Your task to perform on an android device: change the clock display to analog Image 0: 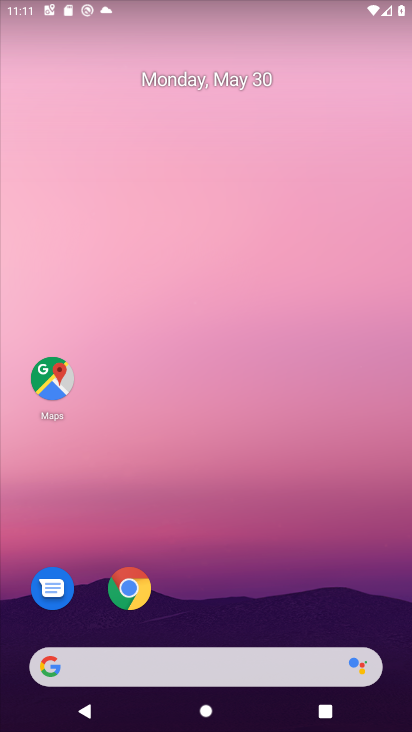
Step 0: press home button
Your task to perform on an android device: change the clock display to analog Image 1: 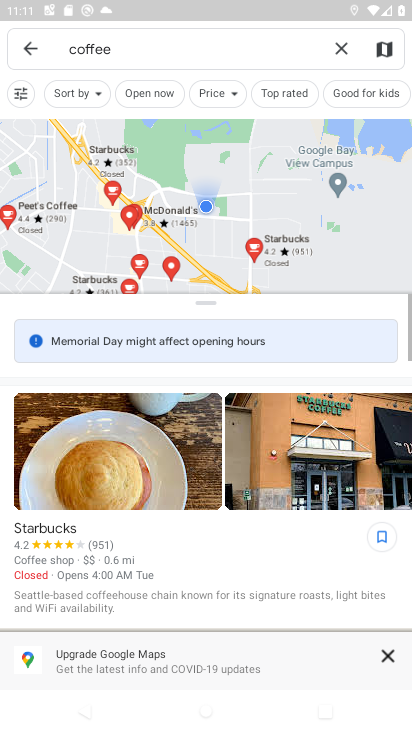
Step 1: drag from (329, 518) to (336, 6)
Your task to perform on an android device: change the clock display to analog Image 2: 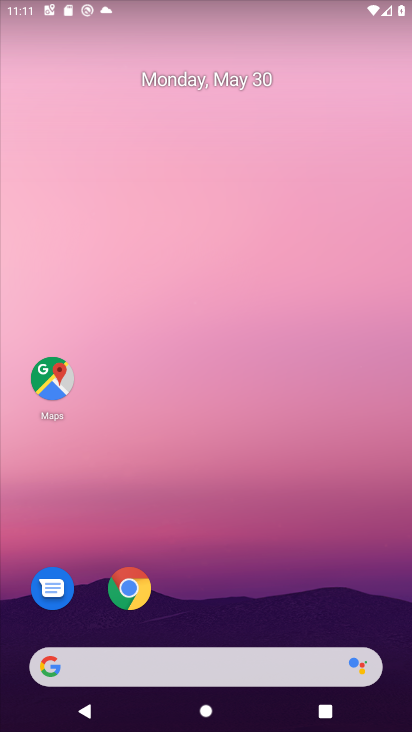
Step 2: drag from (243, 702) to (289, 54)
Your task to perform on an android device: change the clock display to analog Image 3: 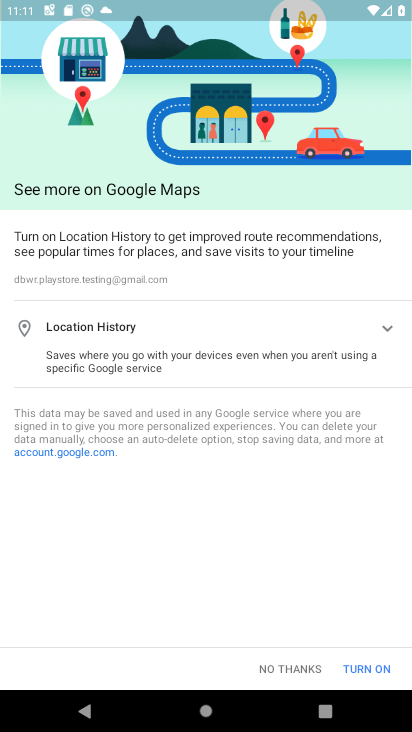
Step 3: press home button
Your task to perform on an android device: change the clock display to analog Image 4: 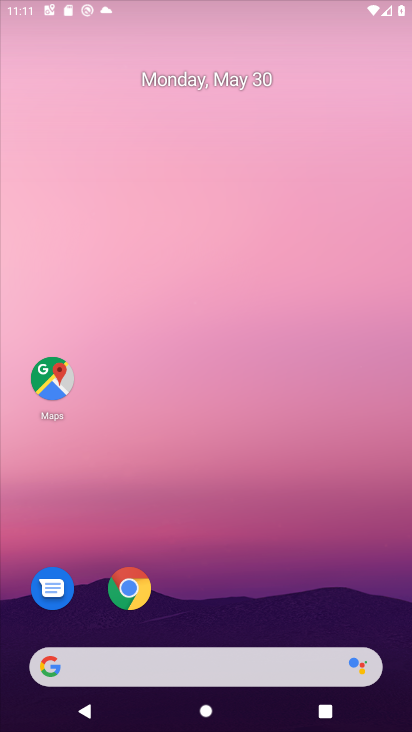
Step 4: drag from (245, 687) to (411, 67)
Your task to perform on an android device: change the clock display to analog Image 5: 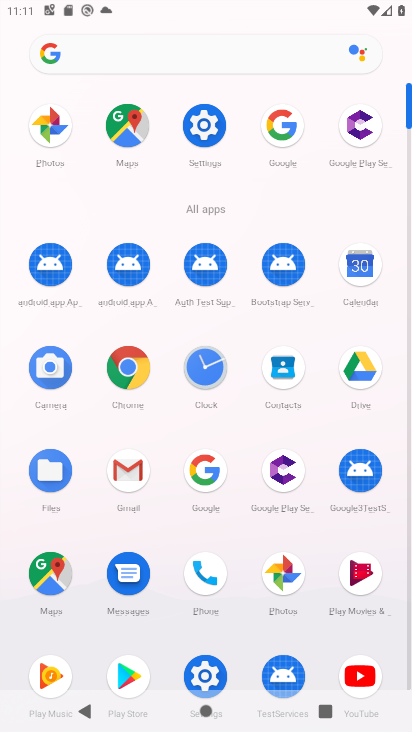
Step 5: click (221, 371)
Your task to perform on an android device: change the clock display to analog Image 6: 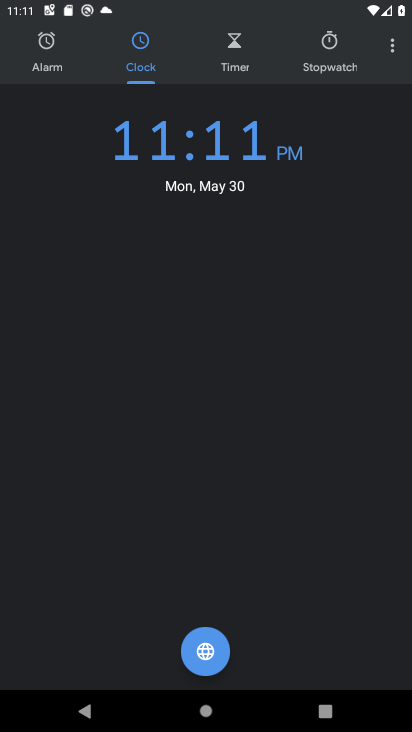
Step 6: click (387, 50)
Your task to perform on an android device: change the clock display to analog Image 7: 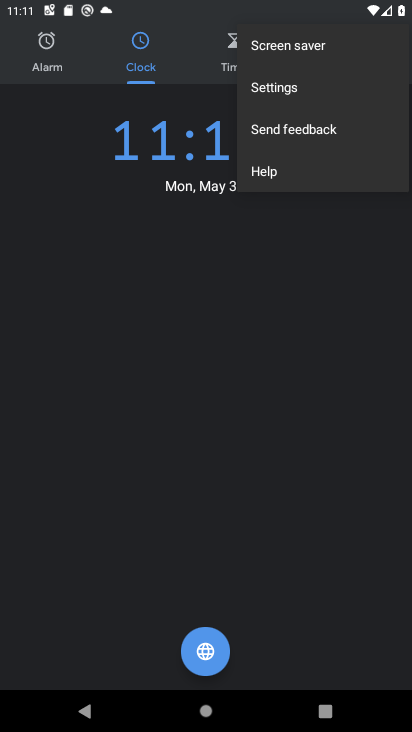
Step 7: click (278, 90)
Your task to perform on an android device: change the clock display to analog Image 8: 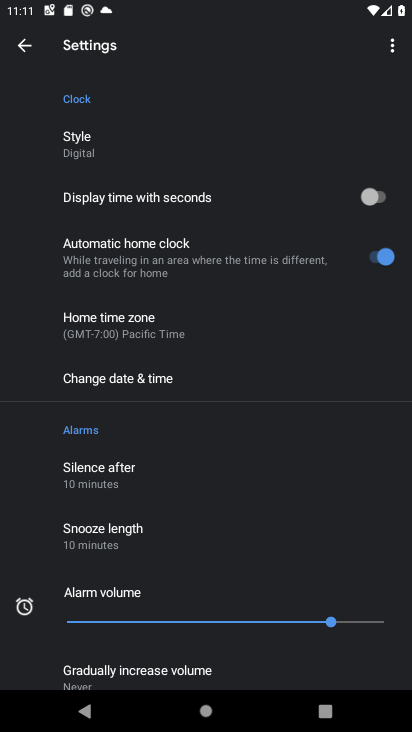
Step 8: click (217, 146)
Your task to perform on an android device: change the clock display to analog Image 9: 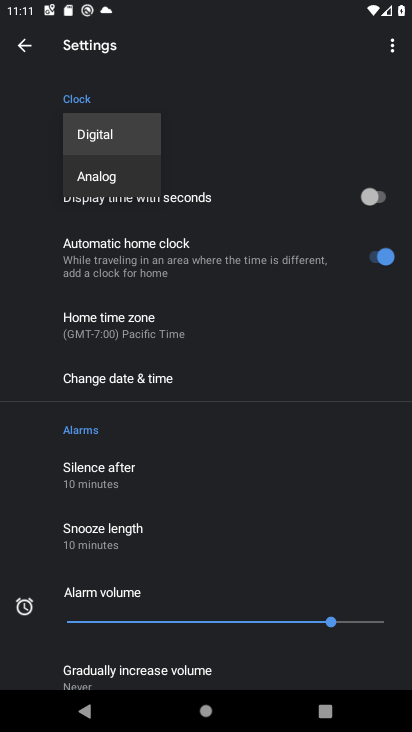
Step 9: click (129, 173)
Your task to perform on an android device: change the clock display to analog Image 10: 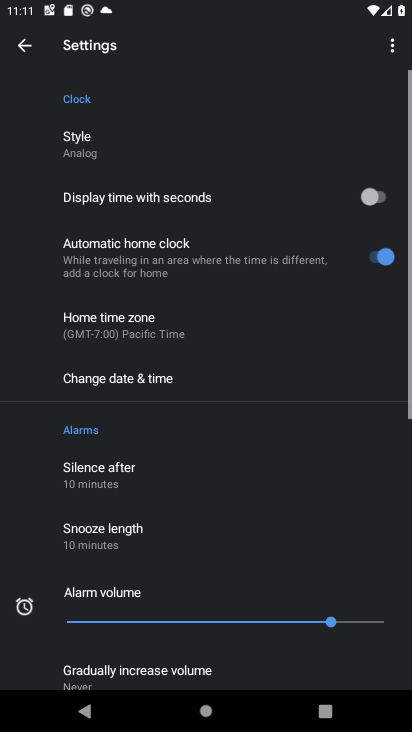
Step 10: task complete